Your task to perform on an android device: delete the emails in spam in the gmail app Image 0: 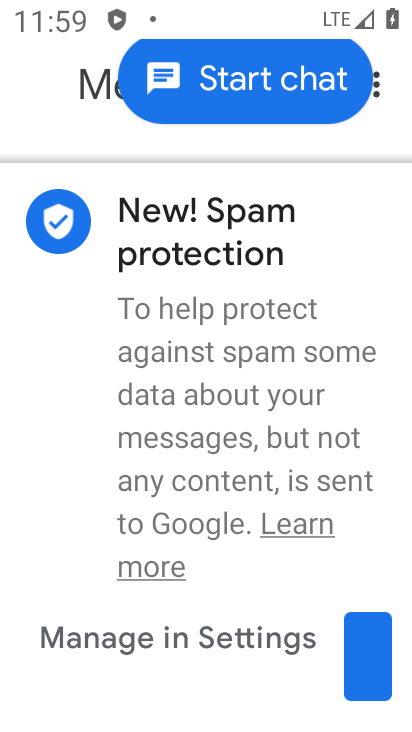
Step 0: press home button
Your task to perform on an android device: delete the emails in spam in the gmail app Image 1: 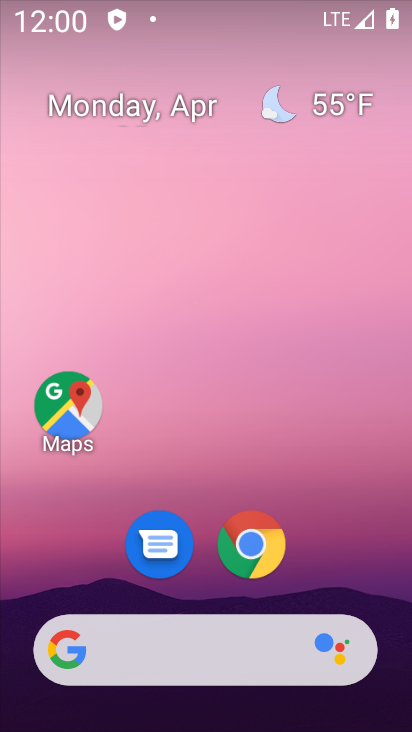
Step 1: drag from (319, 516) to (166, 153)
Your task to perform on an android device: delete the emails in spam in the gmail app Image 2: 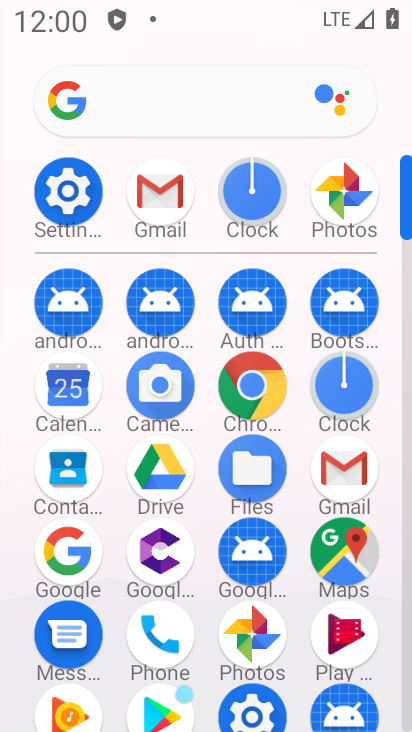
Step 2: click (345, 473)
Your task to perform on an android device: delete the emails in spam in the gmail app Image 3: 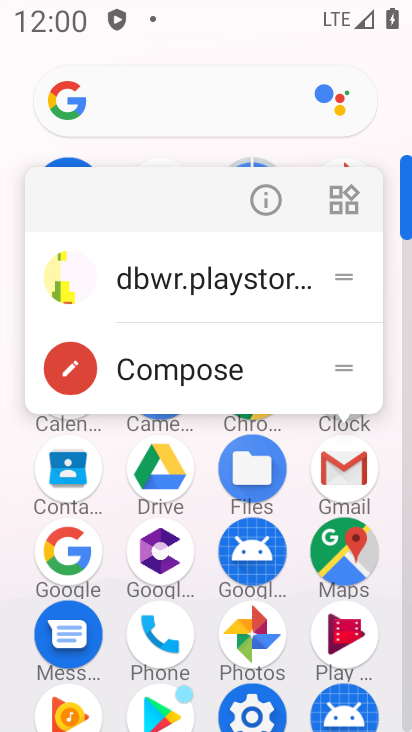
Step 3: click (348, 453)
Your task to perform on an android device: delete the emails in spam in the gmail app Image 4: 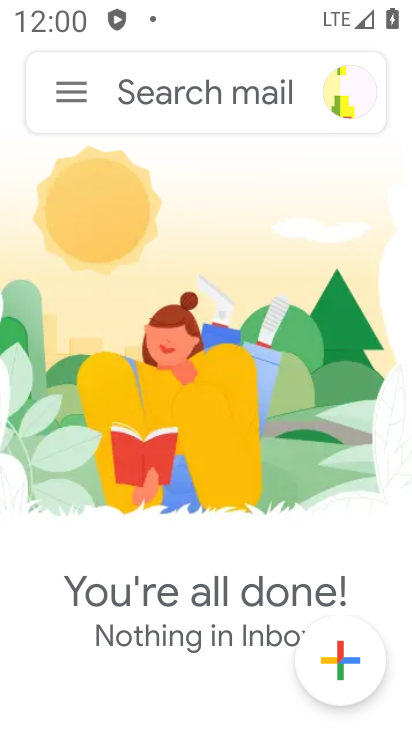
Step 4: click (69, 93)
Your task to perform on an android device: delete the emails in spam in the gmail app Image 5: 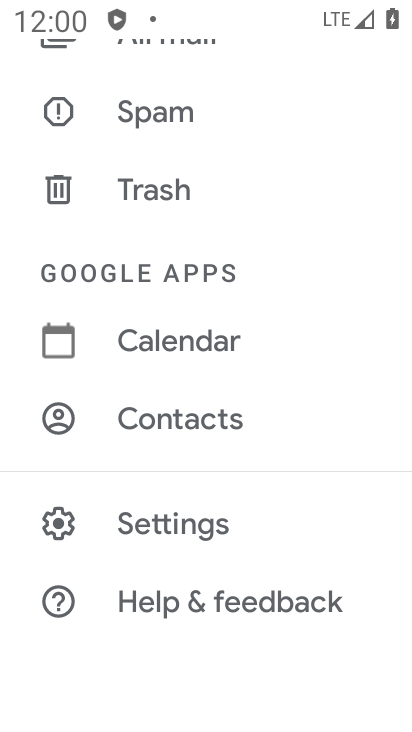
Step 5: click (175, 120)
Your task to perform on an android device: delete the emails in spam in the gmail app Image 6: 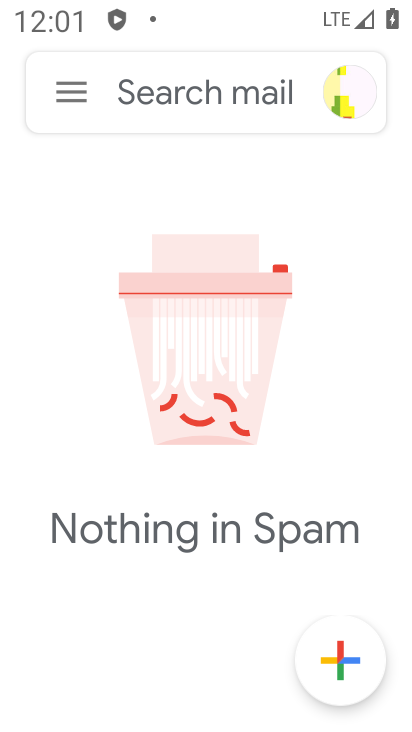
Step 6: task complete